Your task to perform on an android device: Is it going to rain this weekend? Image 0: 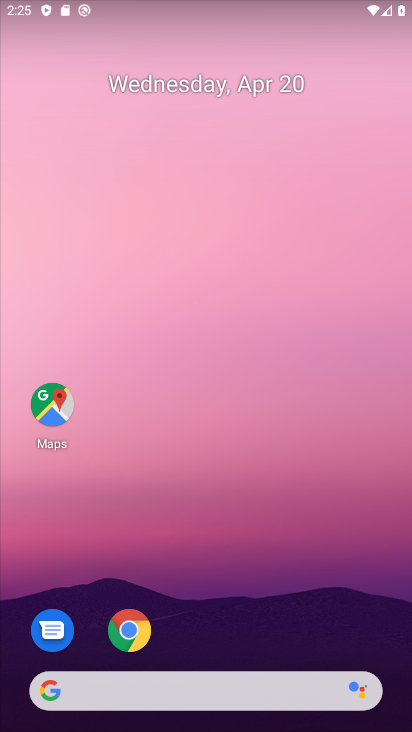
Step 0: click (124, 633)
Your task to perform on an android device: Is it going to rain this weekend? Image 1: 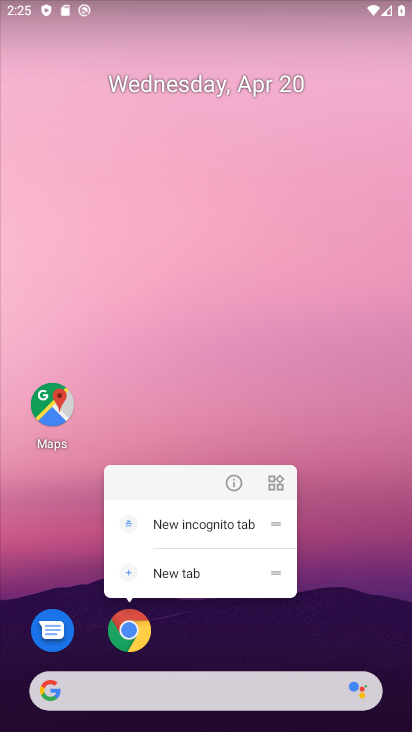
Step 1: click (124, 633)
Your task to perform on an android device: Is it going to rain this weekend? Image 2: 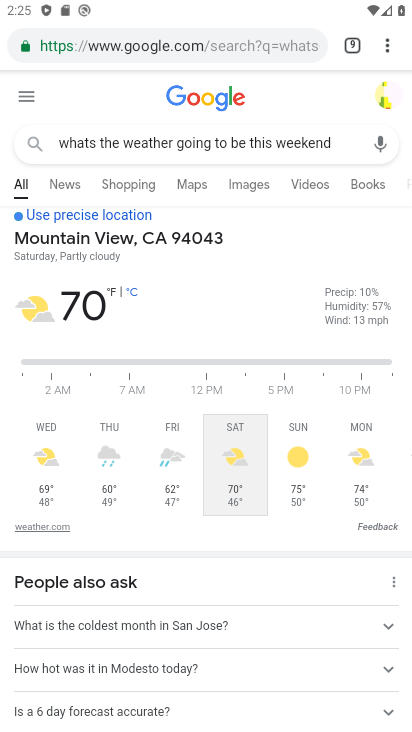
Step 2: click (351, 43)
Your task to perform on an android device: Is it going to rain this weekend? Image 3: 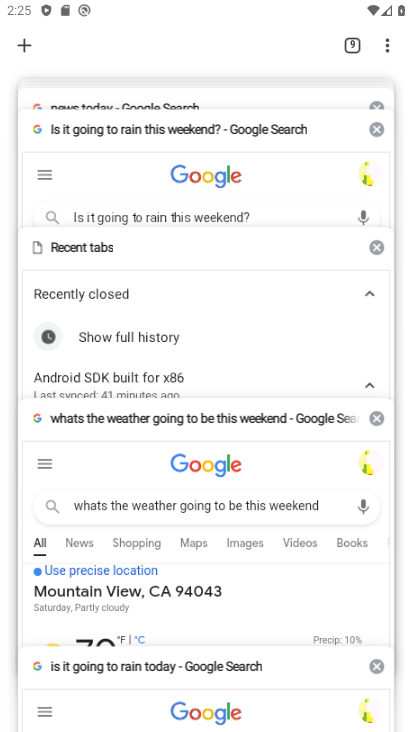
Step 3: click (121, 159)
Your task to perform on an android device: Is it going to rain this weekend? Image 4: 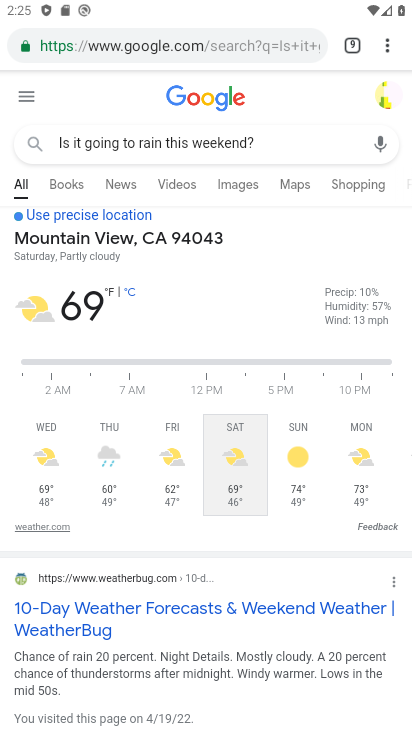
Step 4: task complete